Your task to perform on an android device: Open CNN.com Image 0: 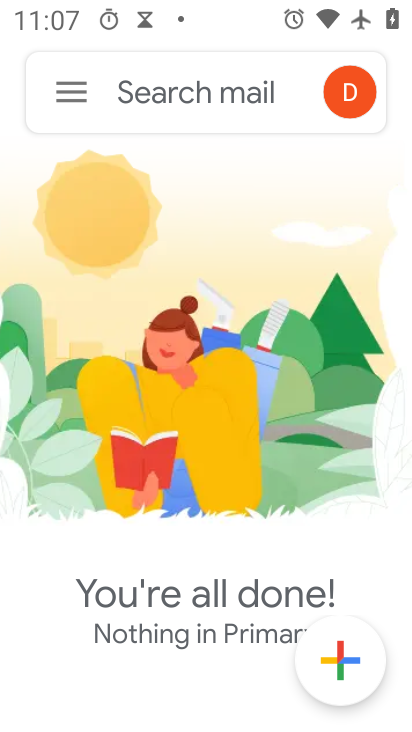
Step 0: press home button
Your task to perform on an android device: Open CNN.com Image 1: 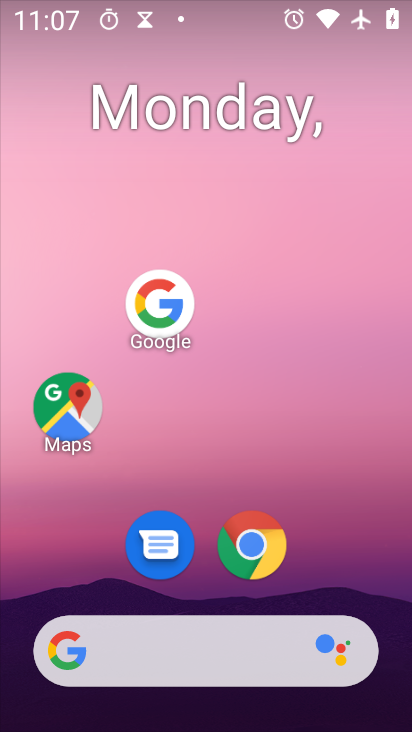
Step 1: click (256, 554)
Your task to perform on an android device: Open CNN.com Image 2: 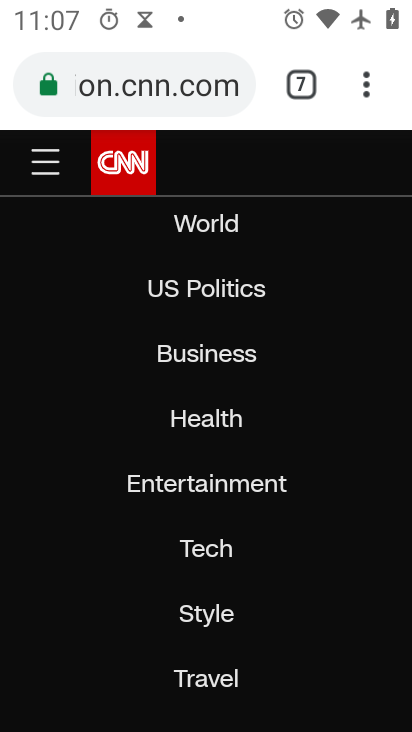
Step 2: task complete